Your task to perform on an android device: open a bookmark in the chrome app Image 0: 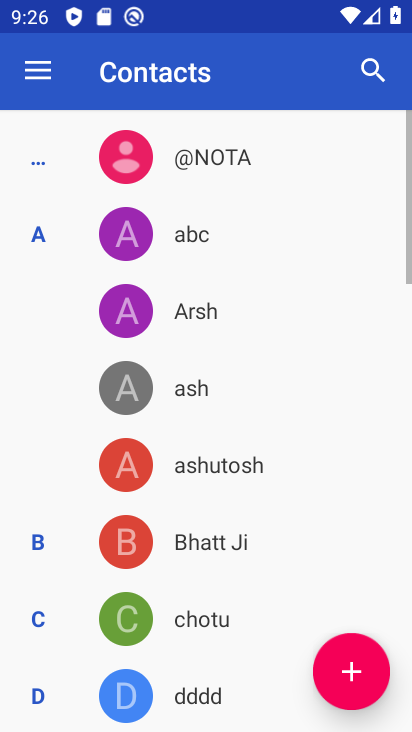
Step 0: press home button
Your task to perform on an android device: open a bookmark in the chrome app Image 1: 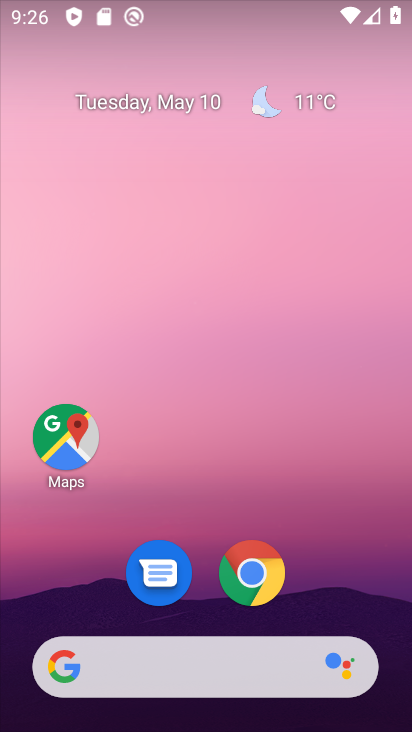
Step 1: click (249, 564)
Your task to perform on an android device: open a bookmark in the chrome app Image 2: 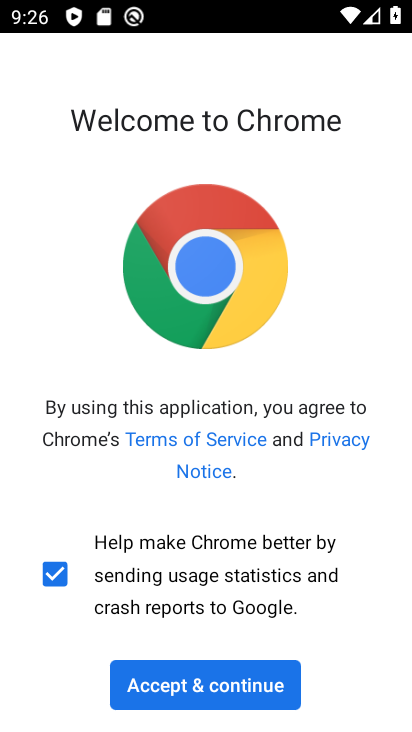
Step 2: click (234, 694)
Your task to perform on an android device: open a bookmark in the chrome app Image 3: 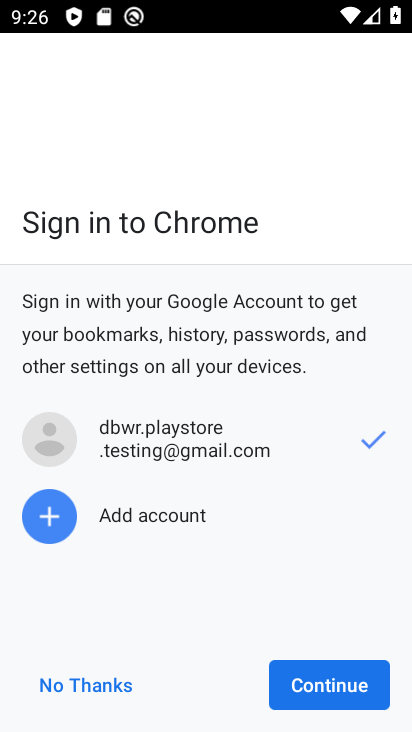
Step 3: click (314, 685)
Your task to perform on an android device: open a bookmark in the chrome app Image 4: 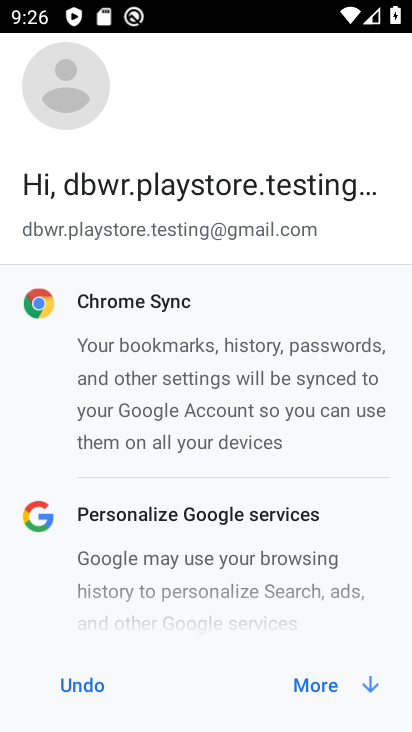
Step 4: click (314, 685)
Your task to perform on an android device: open a bookmark in the chrome app Image 5: 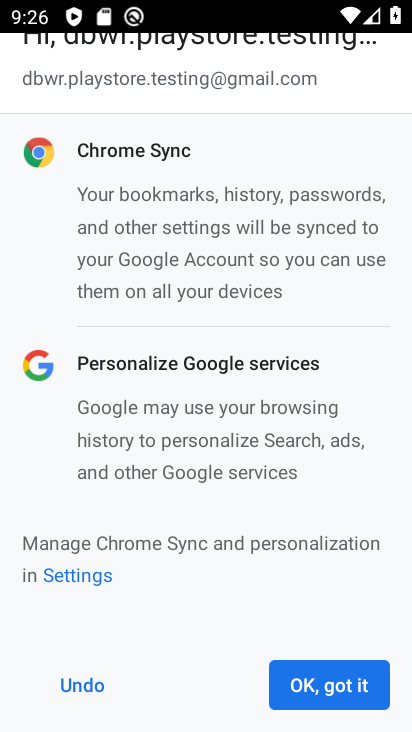
Step 5: click (314, 684)
Your task to perform on an android device: open a bookmark in the chrome app Image 6: 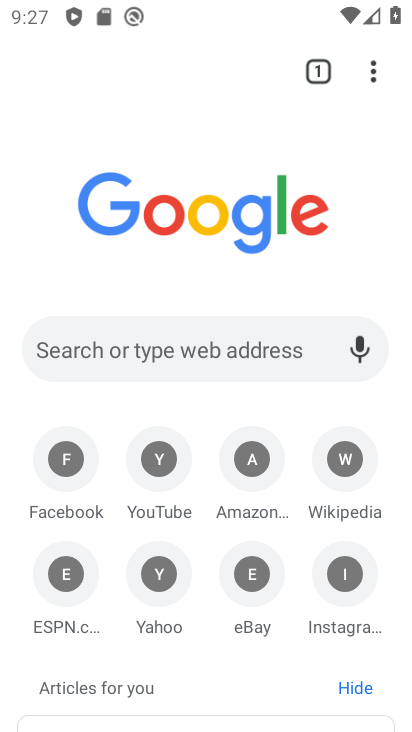
Step 6: drag from (374, 77) to (272, 276)
Your task to perform on an android device: open a bookmark in the chrome app Image 7: 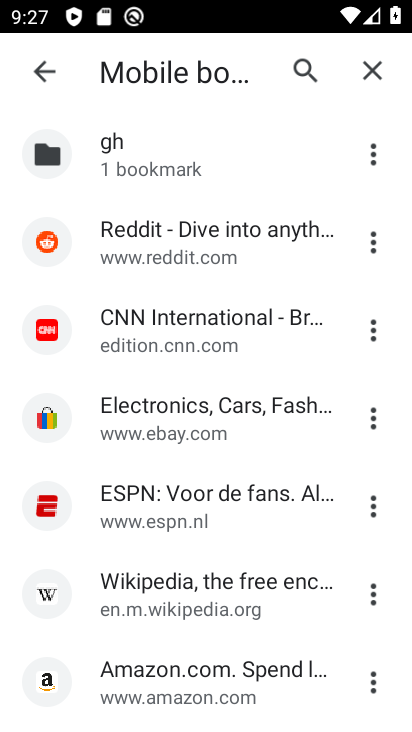
Step 7: click (209, 238)
Your task to perform on an android device: open a bookmark in the chrome app Image 8: 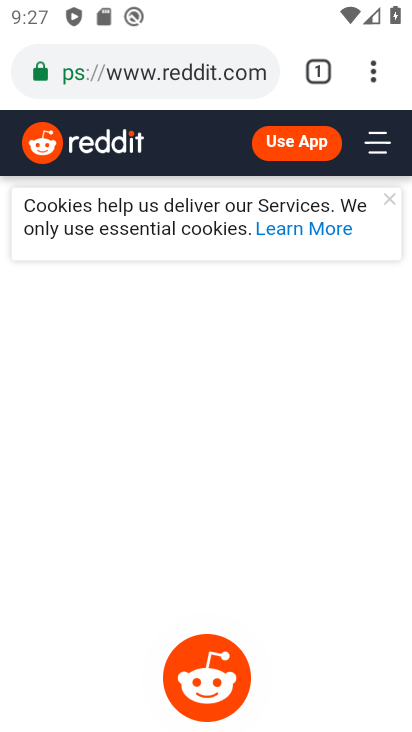
Step 8: task complete